Your task to perform on an android device: Open eBay Image 0: 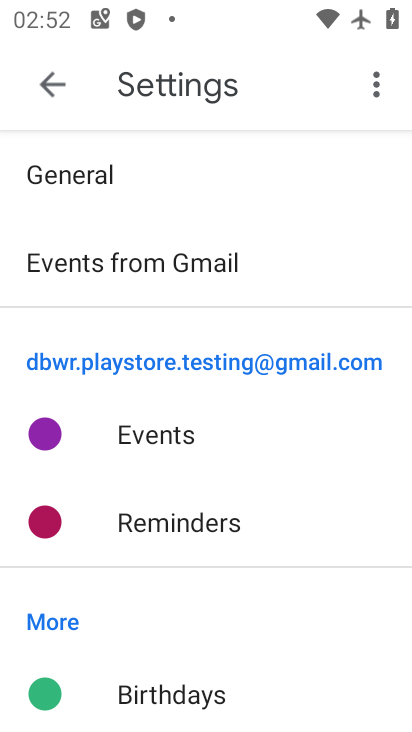
Step 0: press home button
Your task to perform on an android device: Open eBay Image 1: 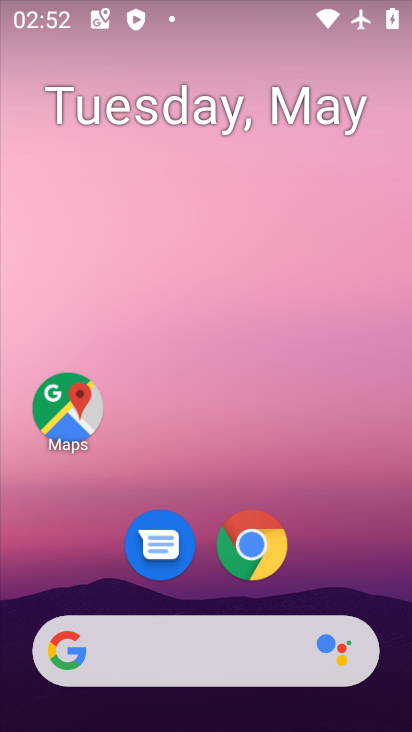
Step 1: click (252, 543)
Your task to perform on an android device: Open eBay Image 2: 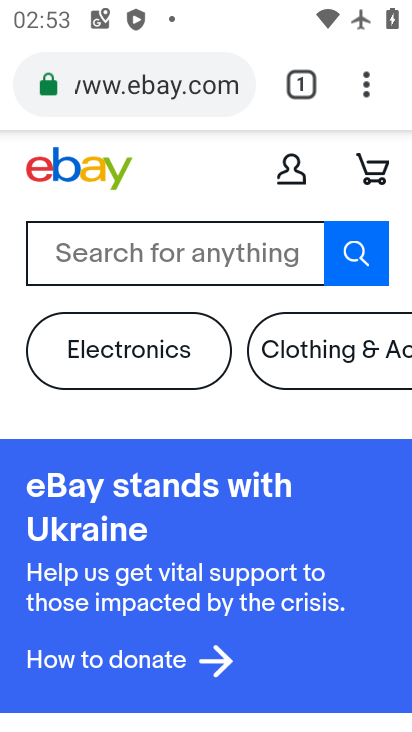
Step 2: task complete